Your task to perform on an android device: change the clock display to analog Image 0: 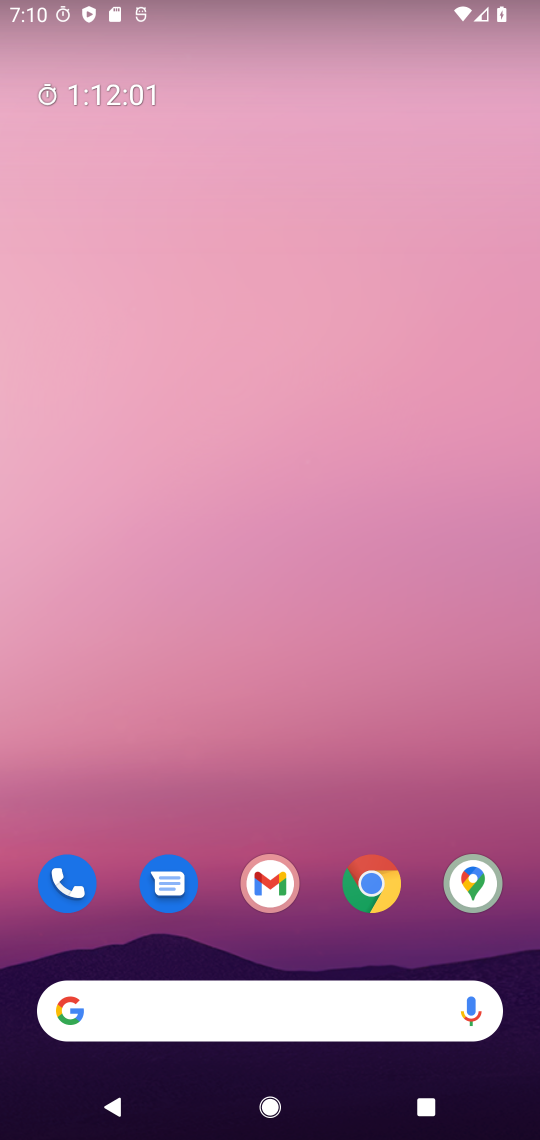
Step 0: drag from (286, 789) to (286, 117)
Your task to perform on an android device: change the clock display to analog Image 1: 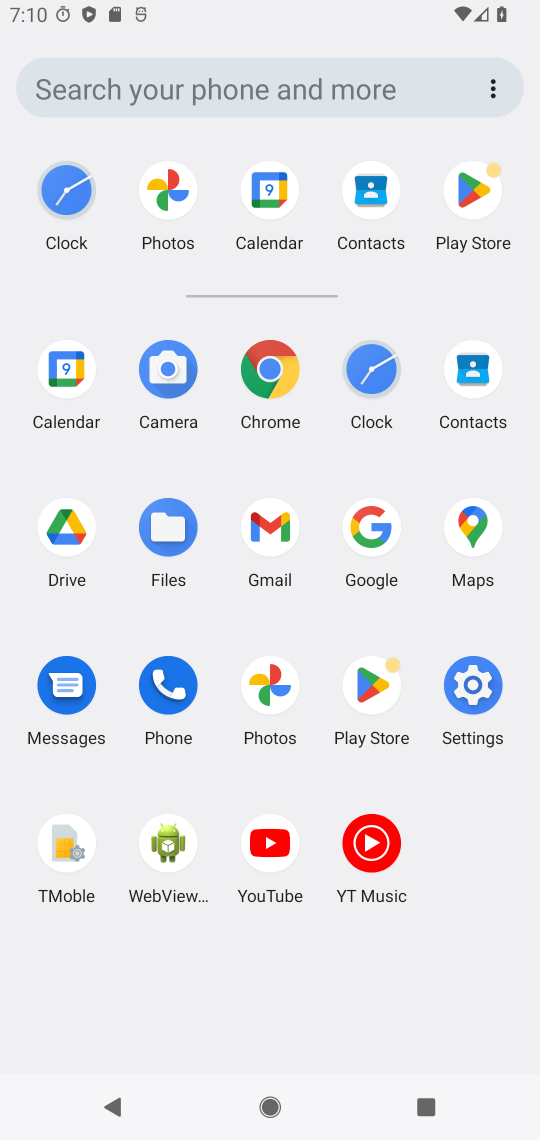
Step 1: click (388, 387)
Your task to perform on an android device: change the clock display to analog Image 2: 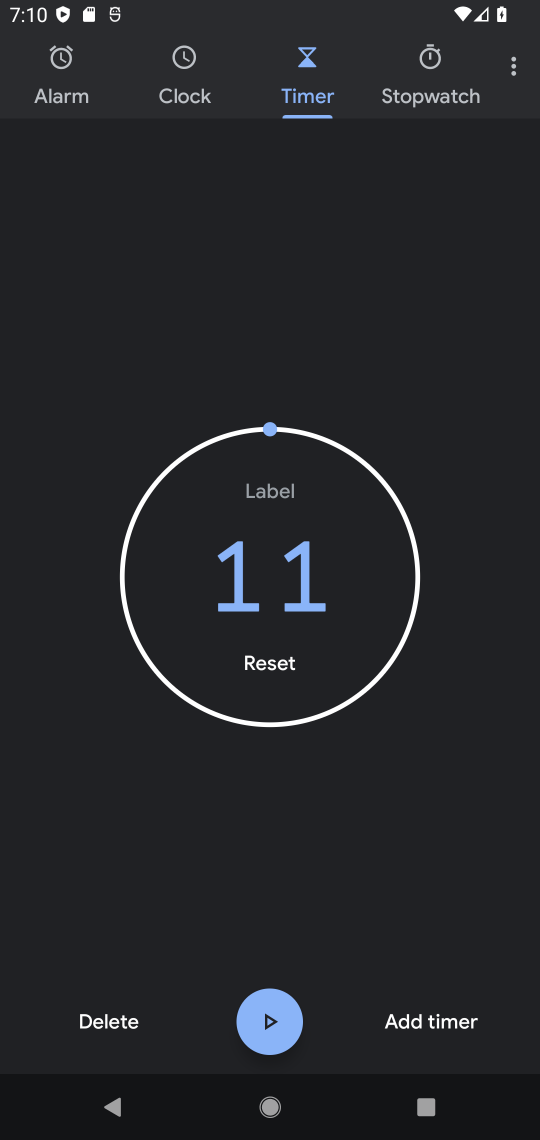
Step 2: click (511, 70)
Your task to perform on an android device: change the clock display to analog Image 3: 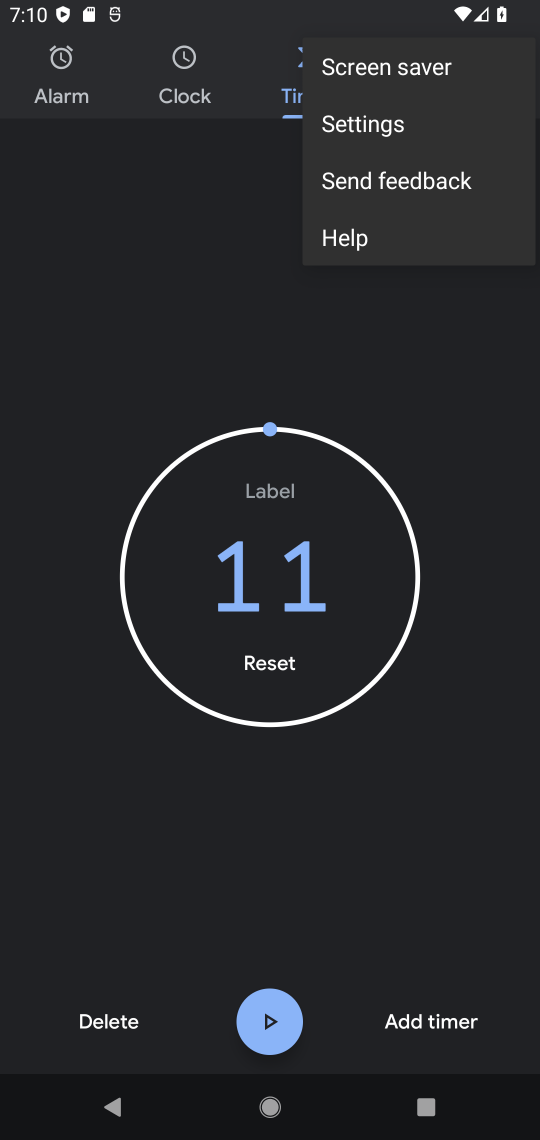
Step 3: click (449, 127)
Your task to perform on an android device: change the clock display to analog Image 4: 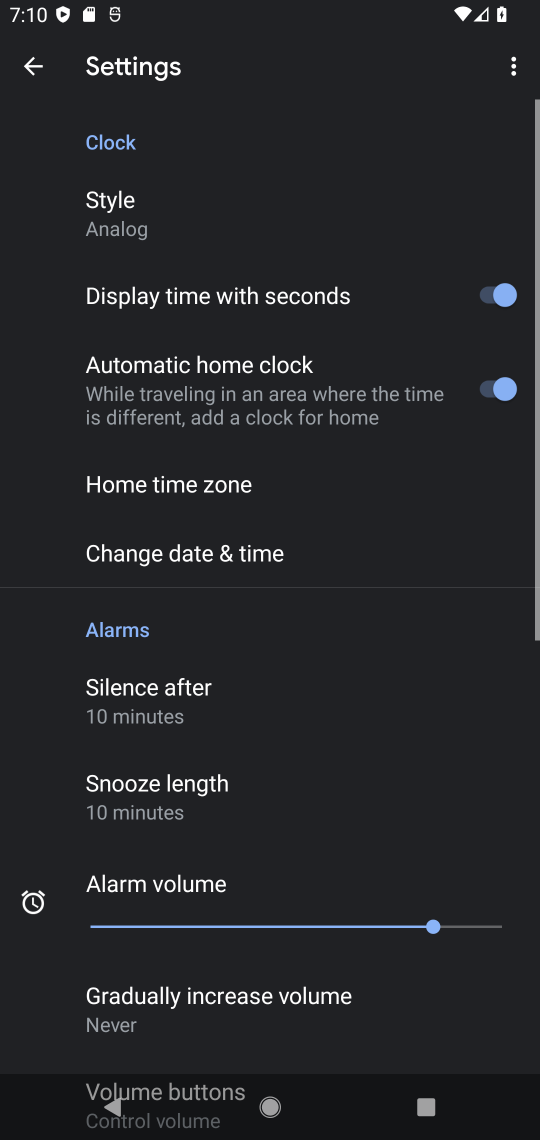
Step 4: click (157, 211)
Your task to perform on an android device: change the clock display to analog Image 5: 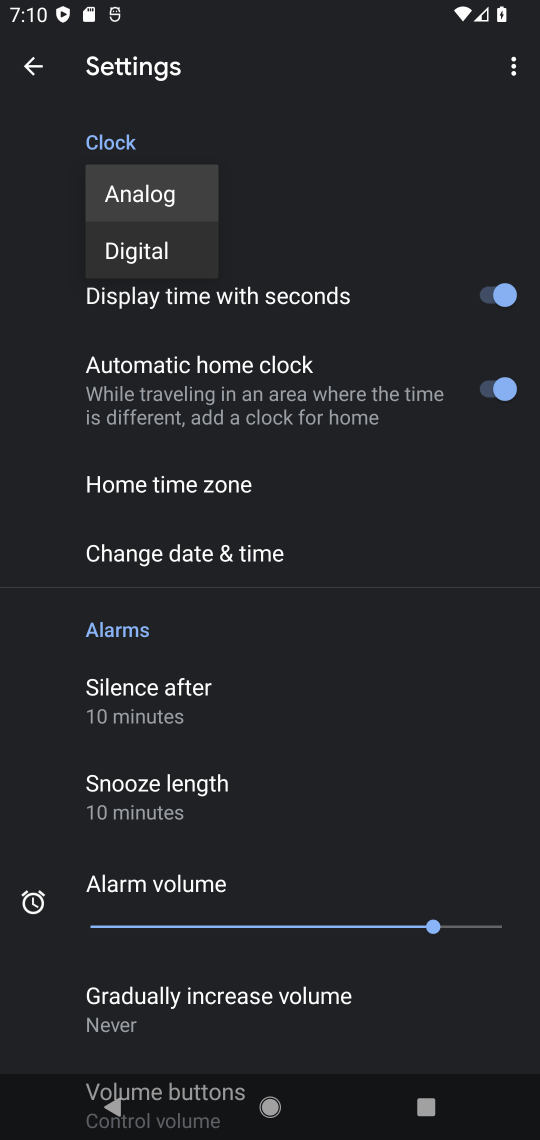
Step 5: task complete